Your task to perform on an android device: turn pop-ups off in chrome Image 0: 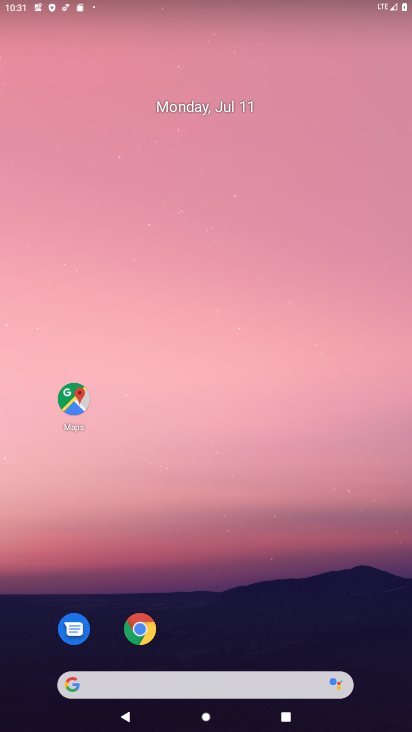
Step 0: drag from (177, 660) to (258, 164)
Your task to perform on an android device: turn pop-ups off in chrome Image 1: 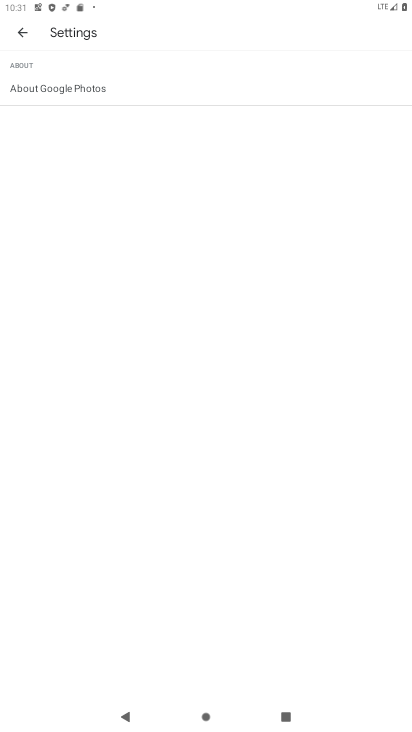
Step 1: press home button
Your task to perform on an android device: turn pop-ups off in chrome Image 2: 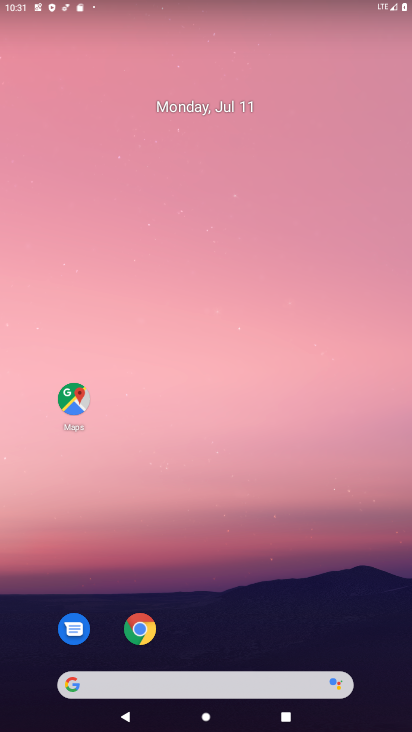
Step 2: drag from (213, 620) to (261, 264)
Your task to perform on an android device: turn pop-ups off in chrome Image 3: 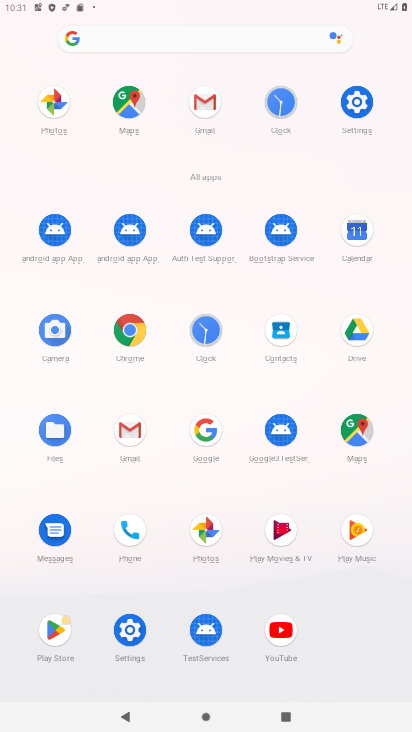
Step 3: click (133, 343)
Your task to perform on an android device: turn pop-ups off in chrome Image 4: 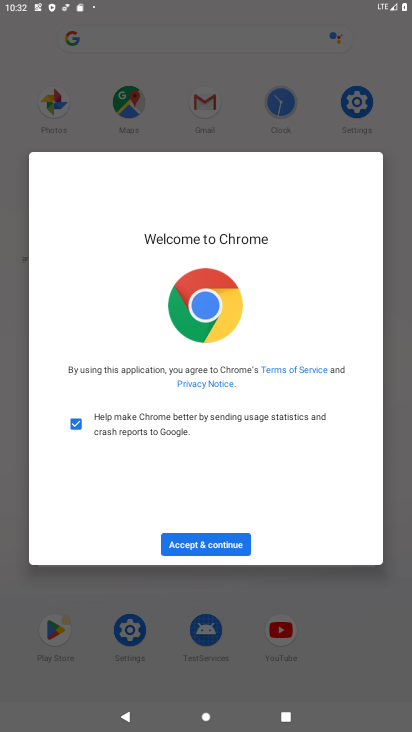
Step 4: click (229, 545)
Your task to perform on an android device: turn pop-ups off in chrome Image 5: 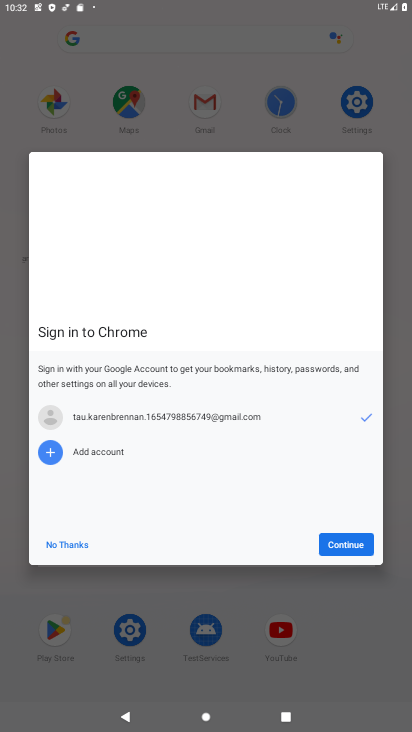
Step 5: click (355, 545)
Your task to perform on an android device: turn pop-ups off in chrome Image 6: 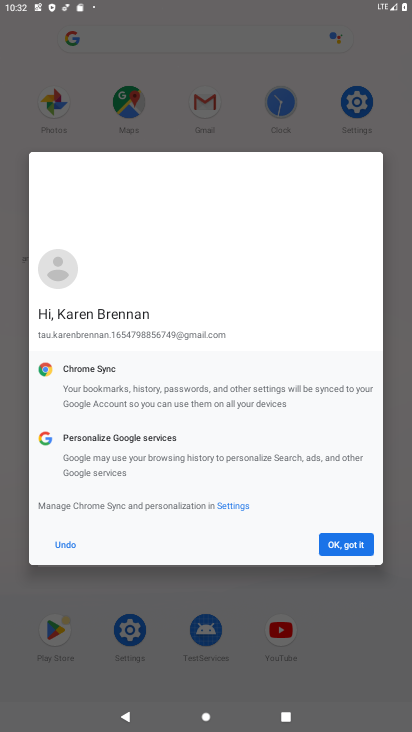
Step 6: click (351, 544)
Your task to perform on an android device: turn pop-ups off in chrome Image 7: 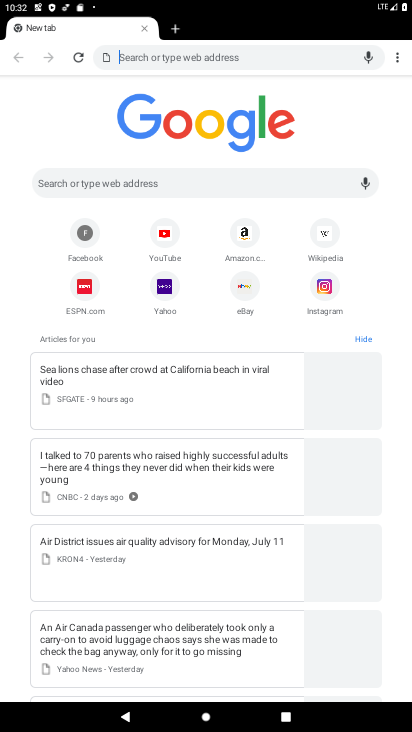
Step 7: drag from (398, 63) to (339, 267)
Your task to perform on an android device: turn pop-ups off in chrome Image 8: 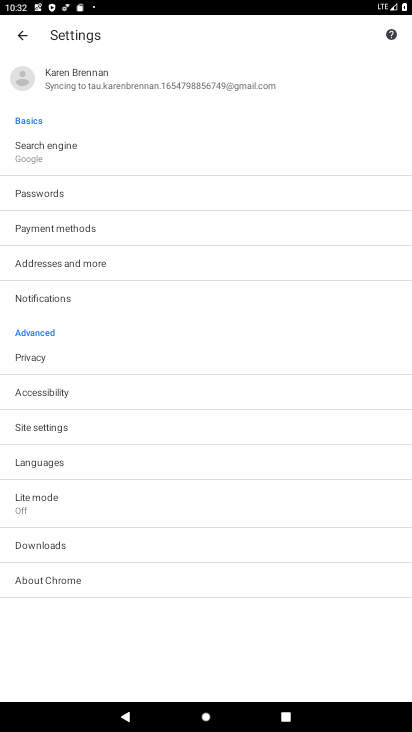
Step 8: click (78, 432)
Your task to perform on an android device: turn pop-ups off in chrome Image 9: 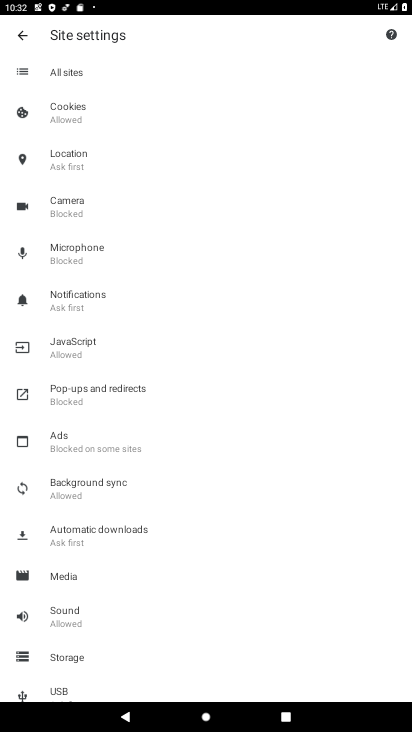
Step 9: drag from (98, 449) to (127, 415)
Your task to perform on an android device: turn pop-ups off in chrome Image 10: 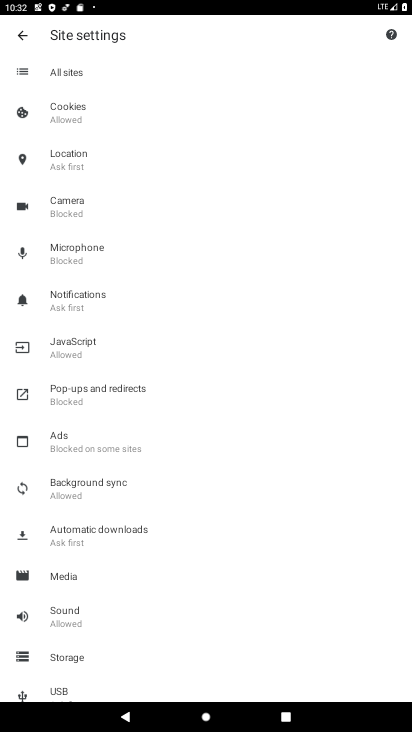
Step 10: click (137, 398)
Your task to perform on an android device: turn pop-ups off in chrome Image 11: 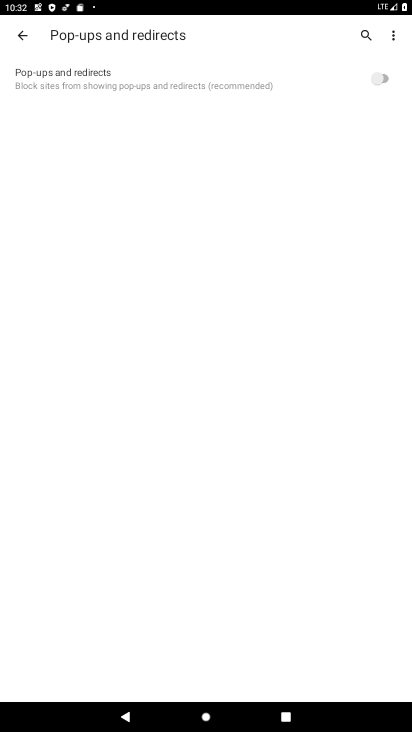
Step 11: task complete